Your task to perform on an android device: Open settings Image 0: 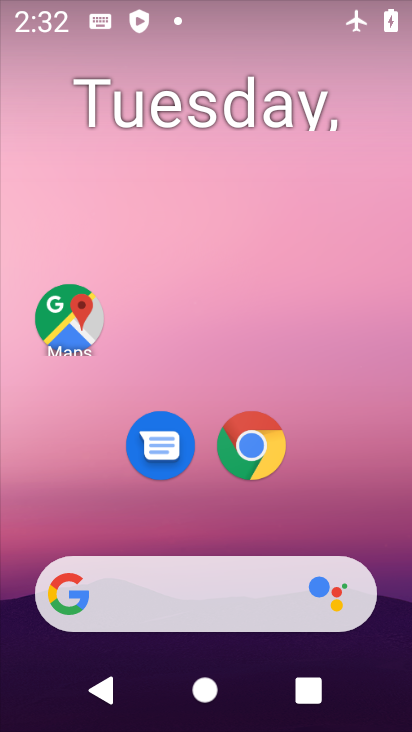
Step 0: drag from (322, 501) to (233, 146)
Your task to perform on an android device: Open settings Image 1: 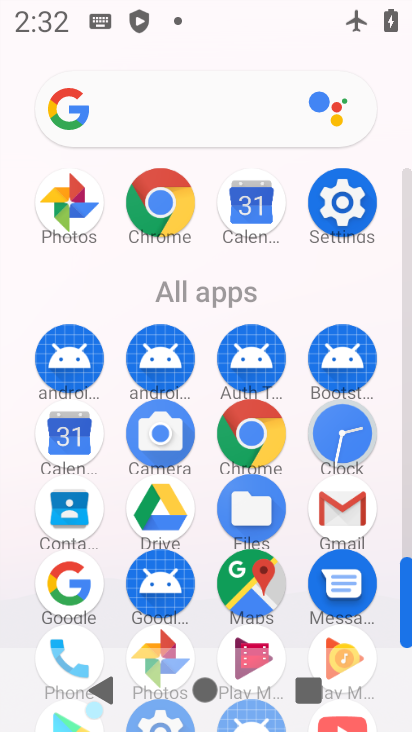
Step 1: click (350, 212)
Your task to perform on an android device: Open settings Image 2: 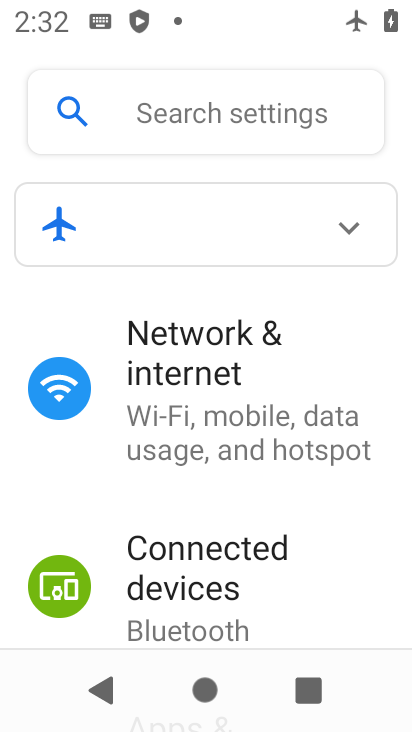
Step 2: task complete